Your task to perform on an android device: turn on improve location accuracy Image 0: 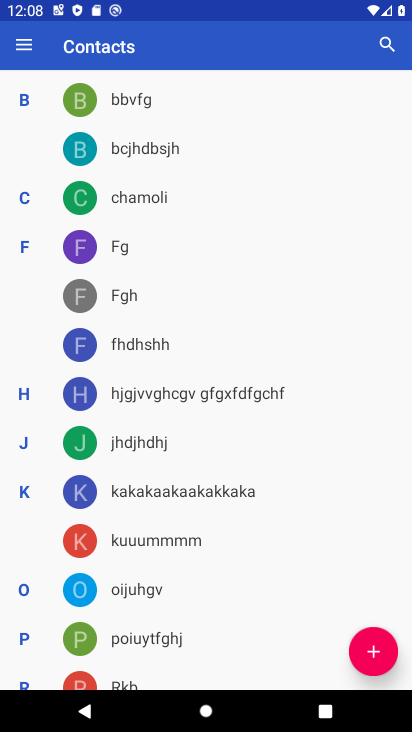
Step 0: press home button
Your task to perform on an android device: turn on improve location accuracy Image 1: 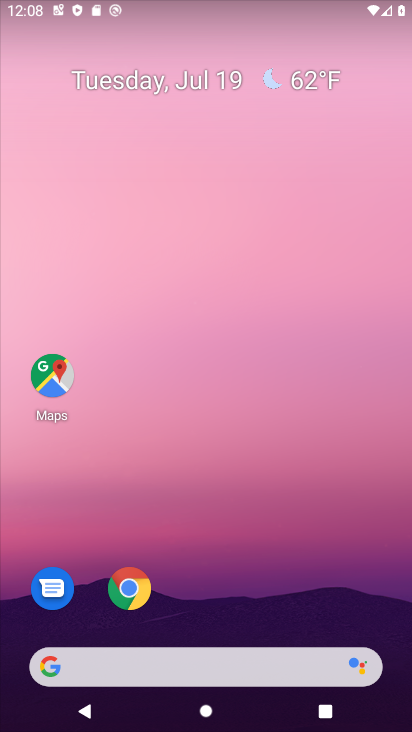
Step 1: drag from (243, 526) to (241, 249)
Your task to perform on an android device: turn on improve location accuracy Image 2: 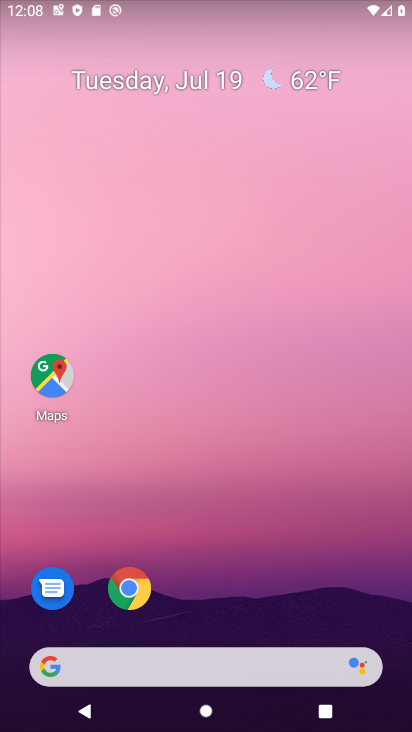
Step 2: drag from (255, 576) to (227, 28)
Your task to perform on an android device: turn on improve location accuracy Image 3: 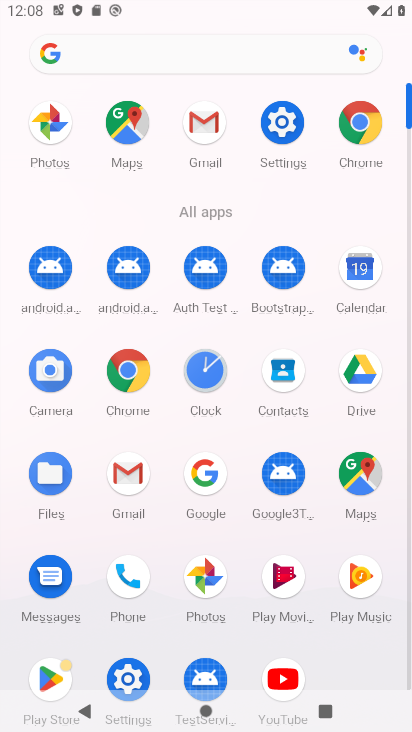
Step 3: click (280, 125)
Your task to perform on an android device: turn on improve location accuracy Image 4: 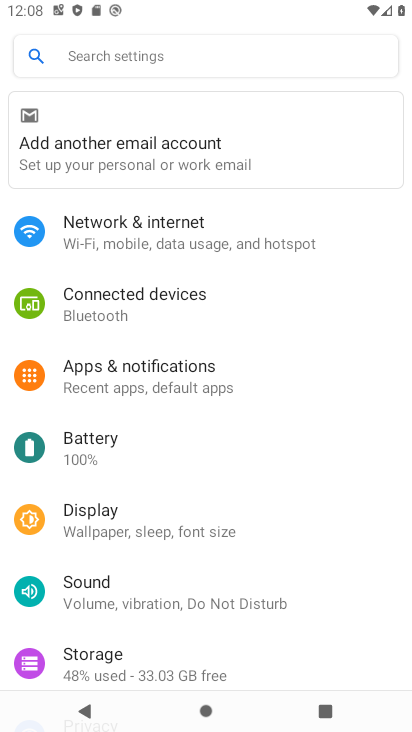
Step 4: drag from (112, 557) to (92, 172)
Your task to perform on an android device: turn on improve location accuracy Image 5: 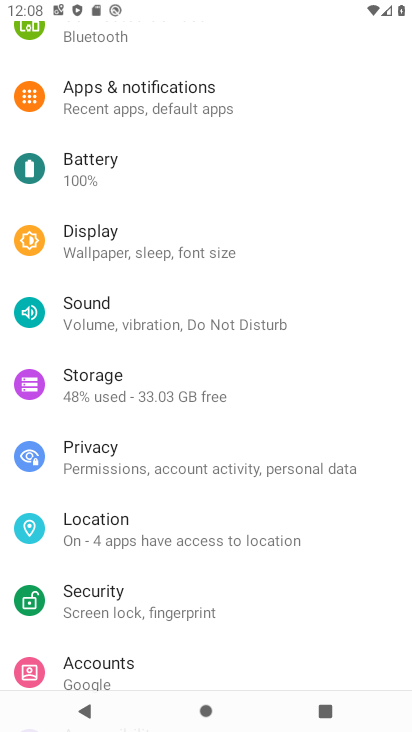
Step 5: click (139, 514)
Your task to perform on an android device: turn on improve location accuracy Image 6: 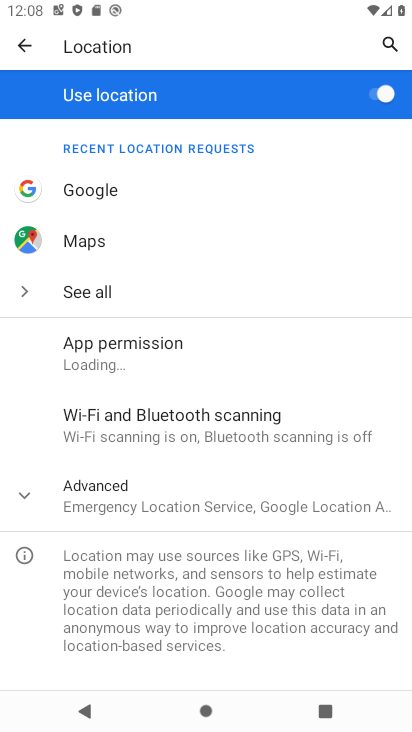
Step 6: click (142, 501)
Your task to perform on an android device: turn on improve location accuracy Image 7: 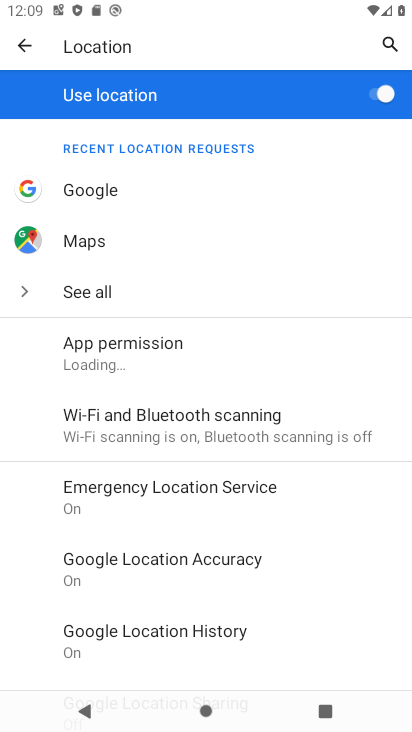
Step 7: click (165, 574)
Your task to perform on an android device: turn on improve location accuracy Image 8: 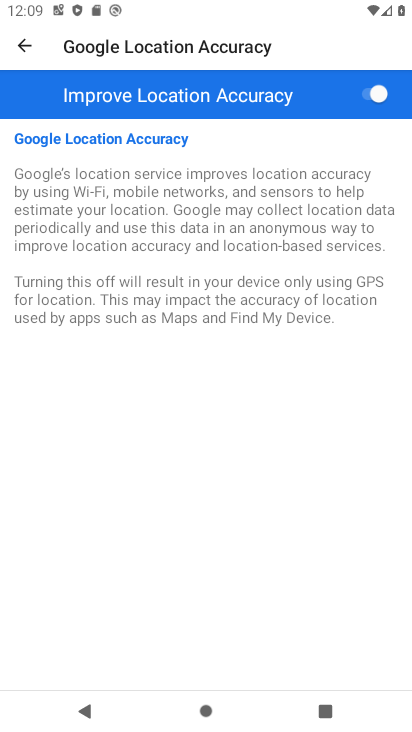
Step 8: task complete